Your task to perform on an android device: Open Wikipedia Image 0: 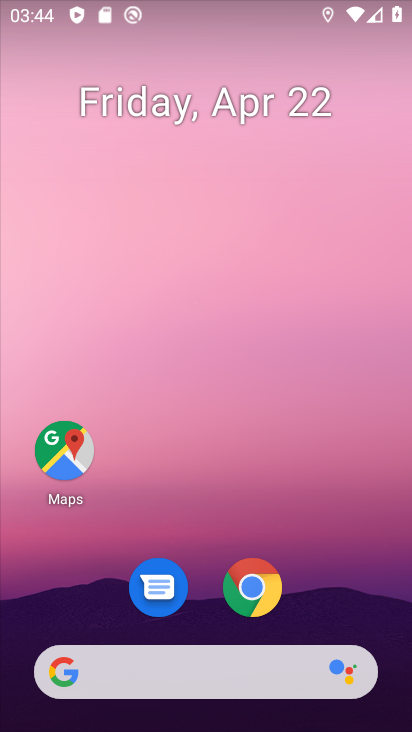
Step 0: click (257, 585)
Your task to perform on an android device: Open Wikipedia Image 1: 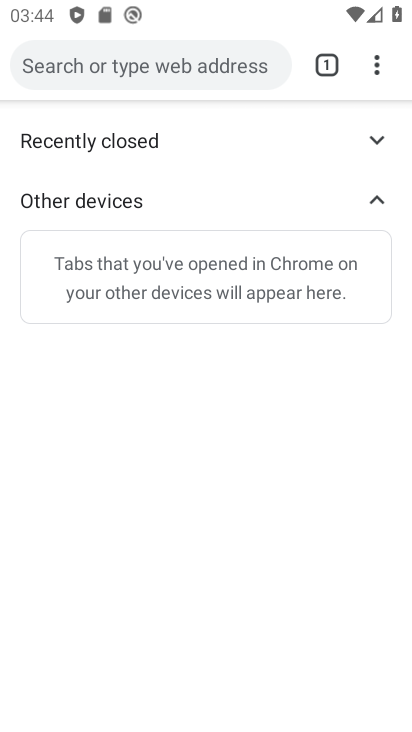
Step 1: click (238, 75)
Your task to perform on an android device: Open Wikipedia Image 2: 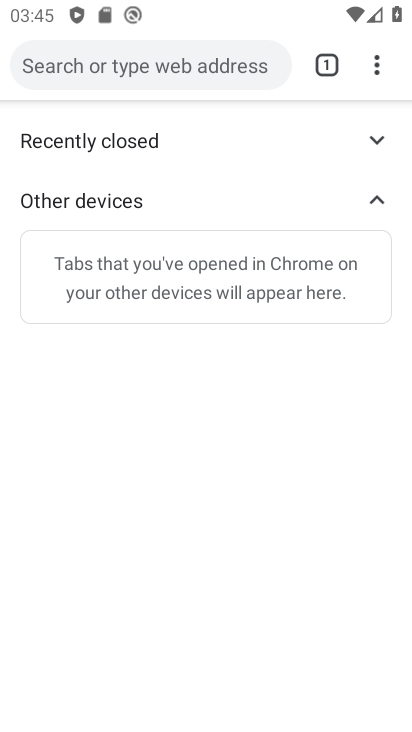
Step 2: click (198, 64)
Your task to perform on an android device: Open Wikipedia Image 3: 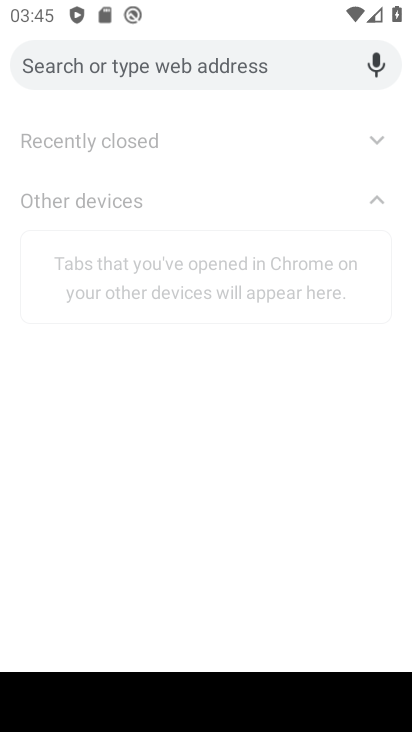
Step 3: type "Wikipedia"
Your task to perform on an android device: Open Wikipedia Image 4: 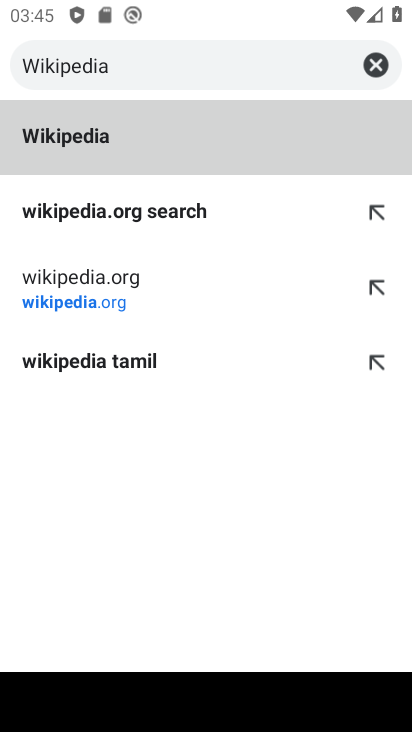
Step 4: click (58, 138)
Your task to perform on an android device: Open Wikipedia Image 5: 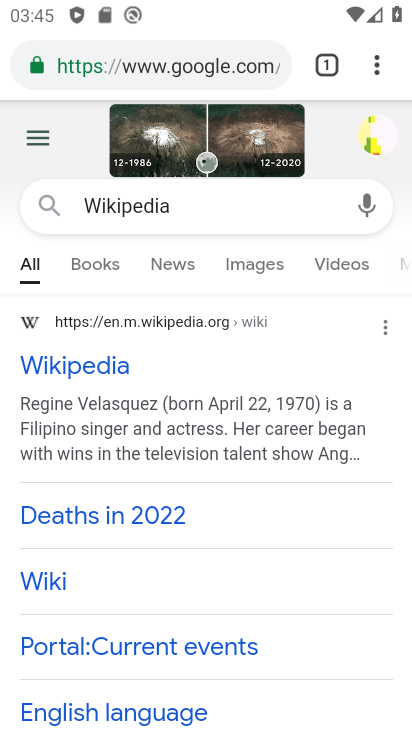
Step 5: drag from (117, 531) to (178, 395)
Your task to perform on an android device: Open Wikipedia Image 6: 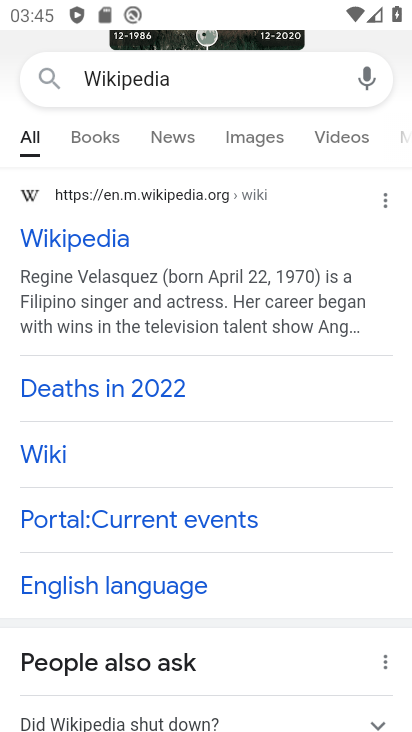
Step 6: click (112, 249)
Your task to perform on an android device: Open Wikipedia Image 7: 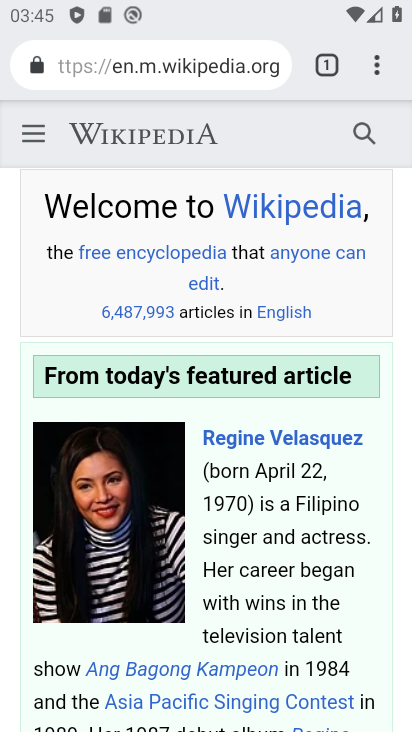
Step 7: task complete